Your task to perform on an android device: turn off notifications in google photos Image 0: 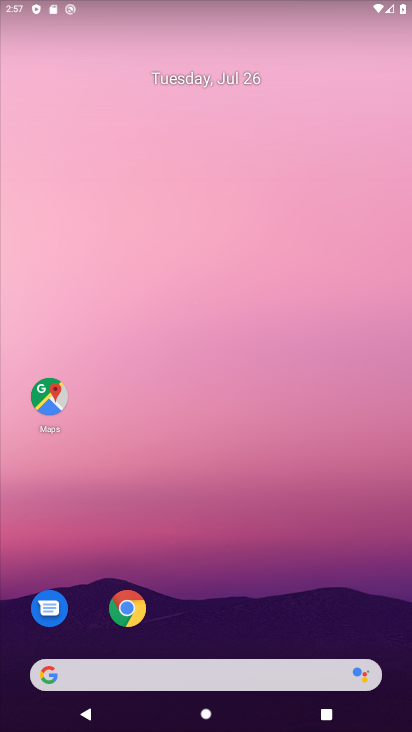
Step 0: drag from (210, 494) to (205, 19)
Your task to perform on an android device: turn off notifications in google photos Image 1: 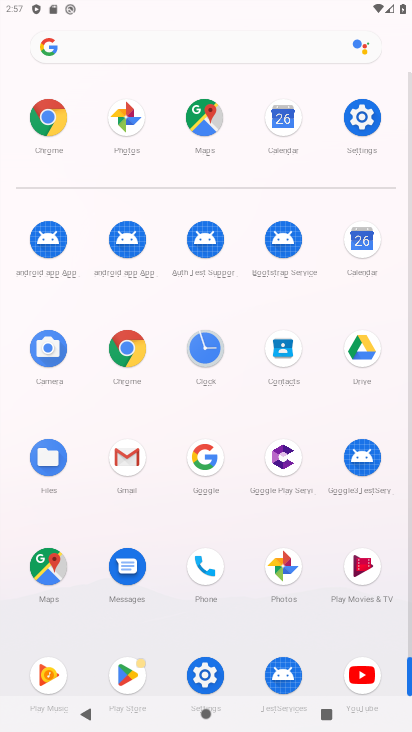
Step 1: click (290, 582)
Your task to perform on an android device: turn off notifications in google photos Image 2: 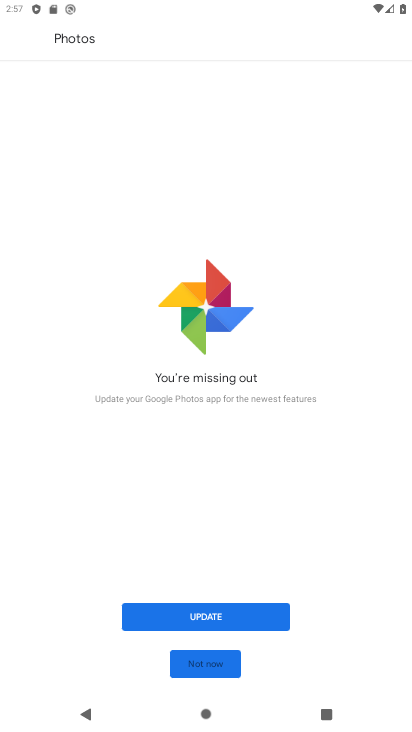
Step 2: click (227, 664)
Your task to perform on an android device: turn off notifications in google photos Image 3: 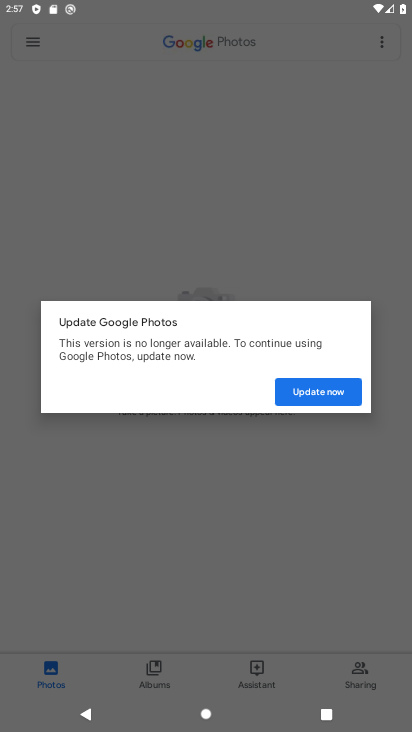
Step 3: click (314, 399)
Your task to perform on an android device: turn off notifications in google photos Image 4: 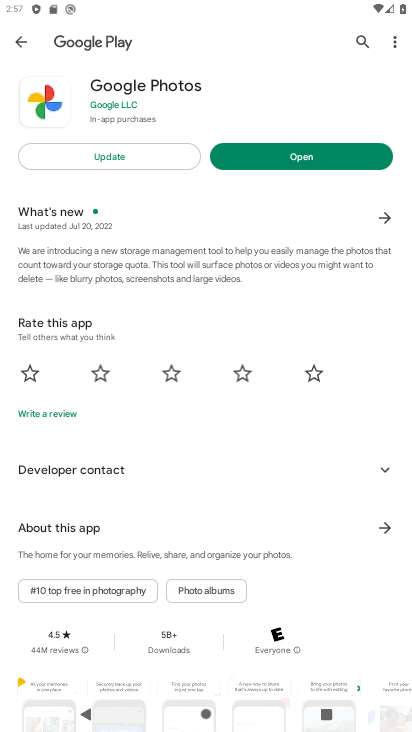
Step 4: click (274, 161)
Your task to perform on an android device: turn off notifications in google photos Image 5: 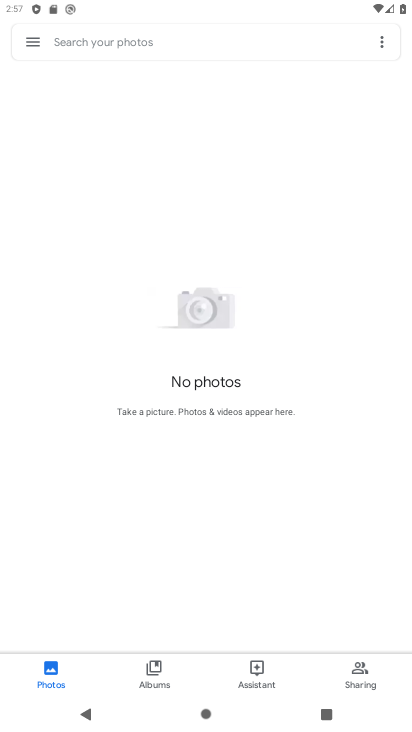
Step 5: click (37, 45)
Your task to perform on an android device: turn off notifications in google photos Image 6: 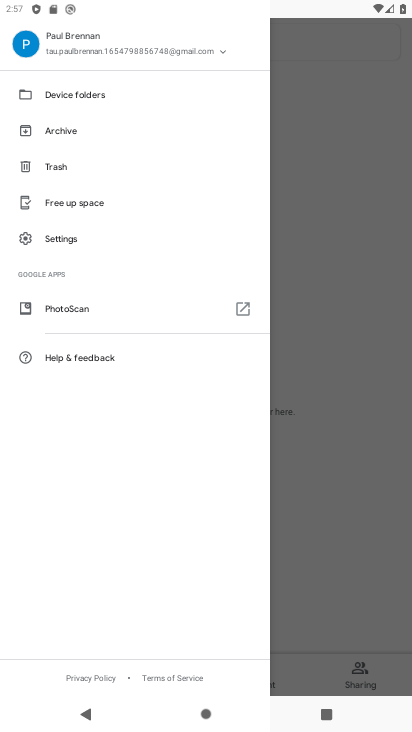
Step 6: click (60, 242)
Your task to perform on an android device: turn off notifications in google photos Image 7: 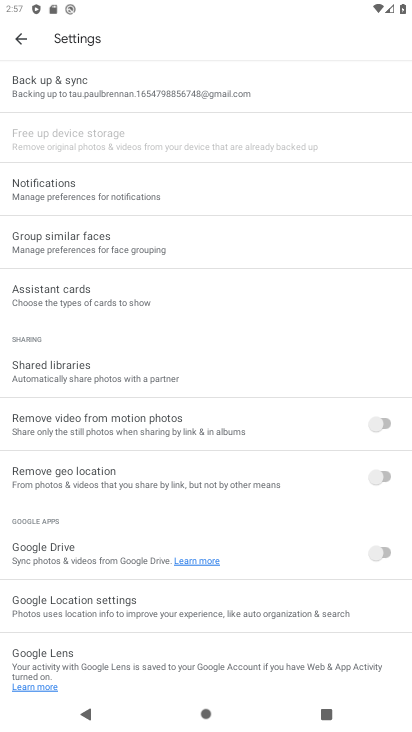
Step 7: click (75, 192)
Your task to perform on an android device: turn off notifications in google photos Image 8: 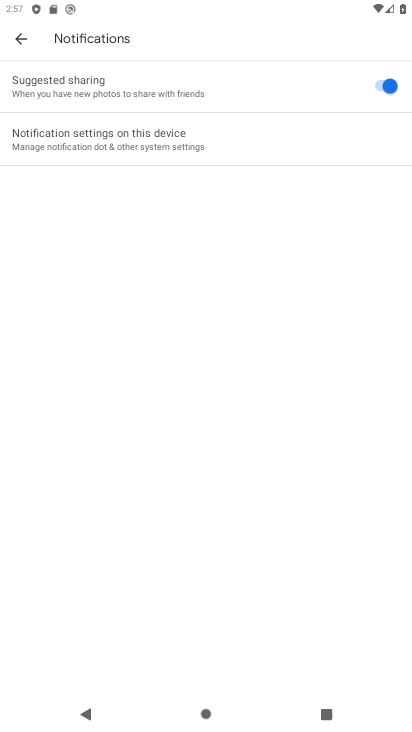
Step 8: click (102, 141)
Your task to perform on an android device: turn off notifications in google photos Image 9: 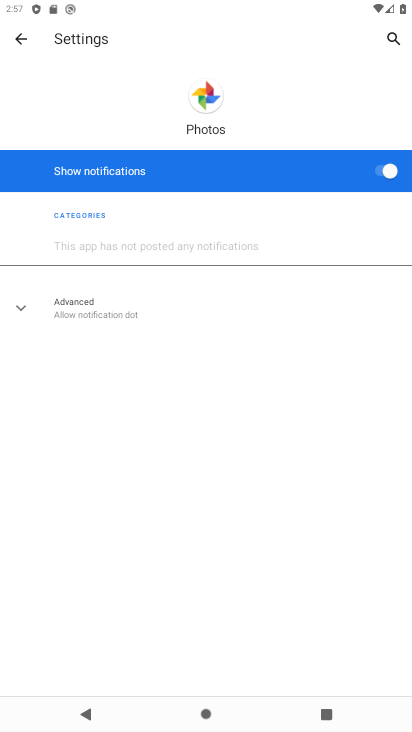
Step 9: click (355, 176)
Your task to perform on an android device: turn off notifications in google photos Image 10: 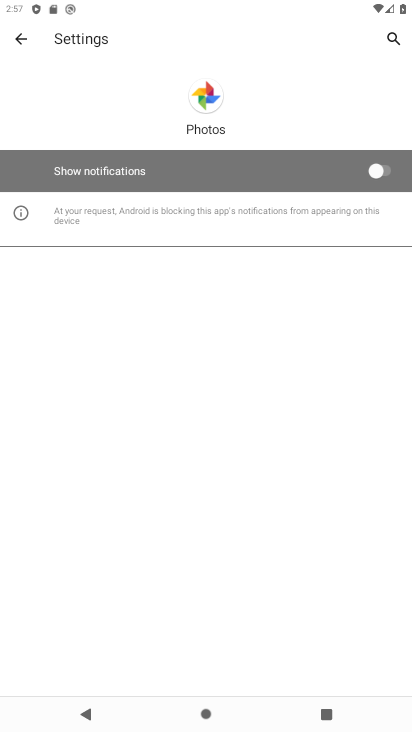
Step 10: task complete